Your task to perform on an android device: remove spam from my inbox in the gmail app Image 0: 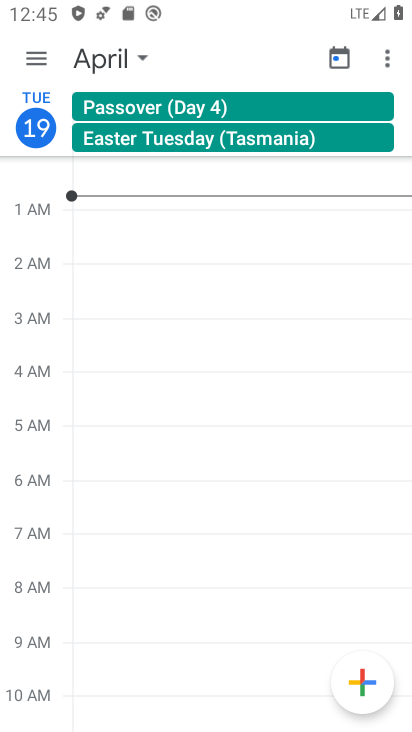
Step 0: press home button
Your task to perform on an android device: remove spam from my inbox in the gmail app Image 1: 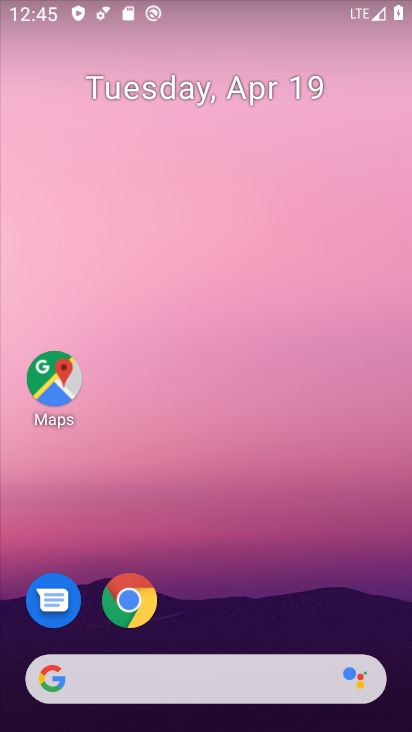
Step 1: drag from (207, 654) to (265, 25)
Your task to perform on an android device: remove spam from my inbox in the gmail app Image 2: 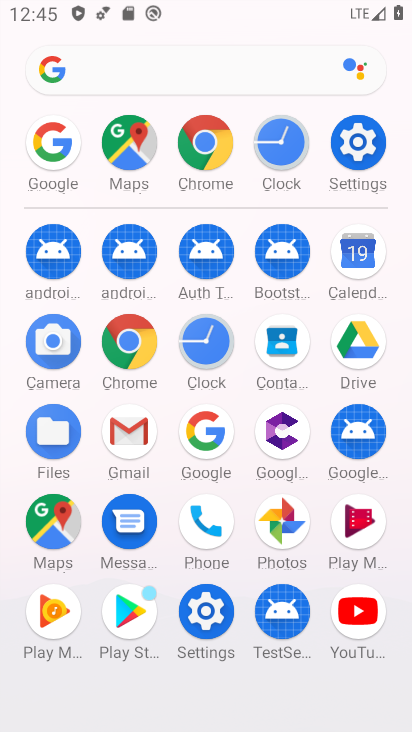
Step 2: click (127, 450)
Your task to perform on an android device: remove spam from my inbox in the gmail app Image 3: 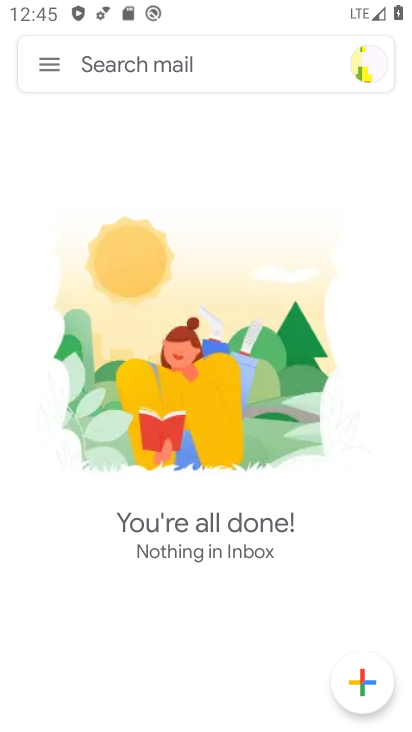
Step 3: click (56, 56)
Your task to perform on an android device: remove spam from my inbox in the gmail app Image 4: 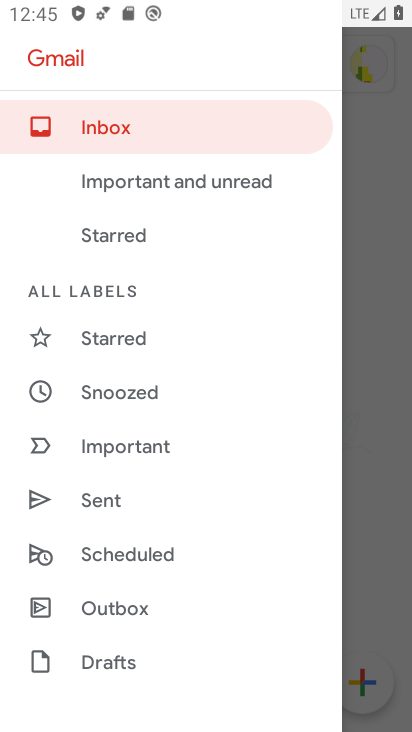
Step 4: click (110, 141)
Your task to perform on an android device: remove spam from my inbox in the gmail app Image 5: 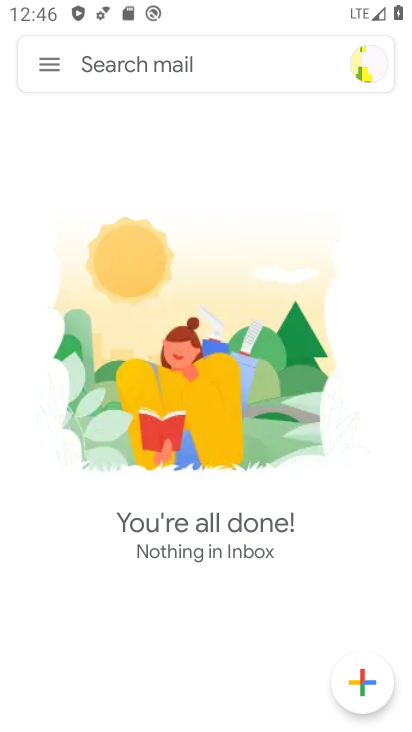
Step 5: task complete